Your task to perform on an android device: Open accessibility settings Image 0: 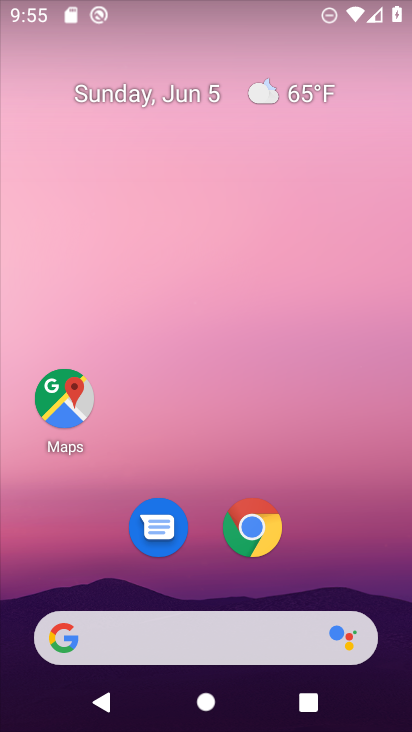
Step 0: drag from (192, 602) to (249, 115)
Your task to perform on an android device: Open accessibility settings Image 1: 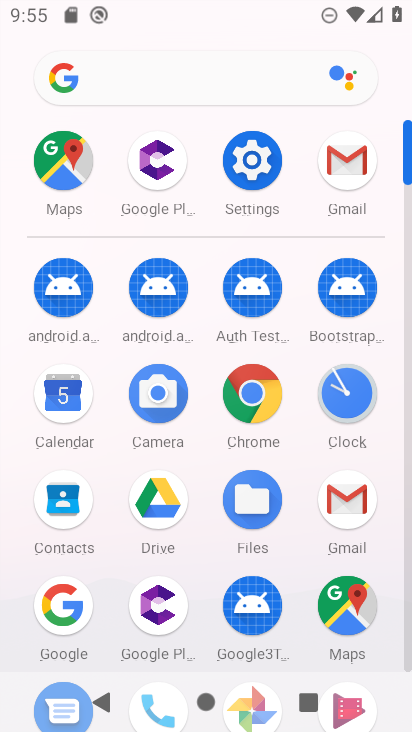
Step 1: drag from (183, 648) to (250, 135)
Your task to perform on an android device: Open accessibility settings Image 2: 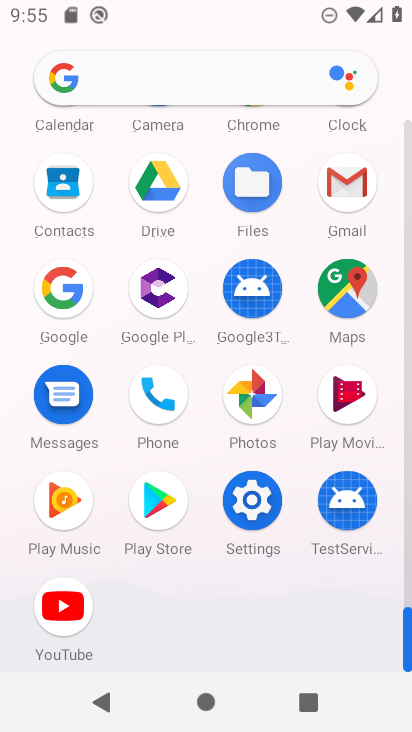
Step 2: click (253, 510)
Your task to perform on an android device: Open accessibility settings Image 3: 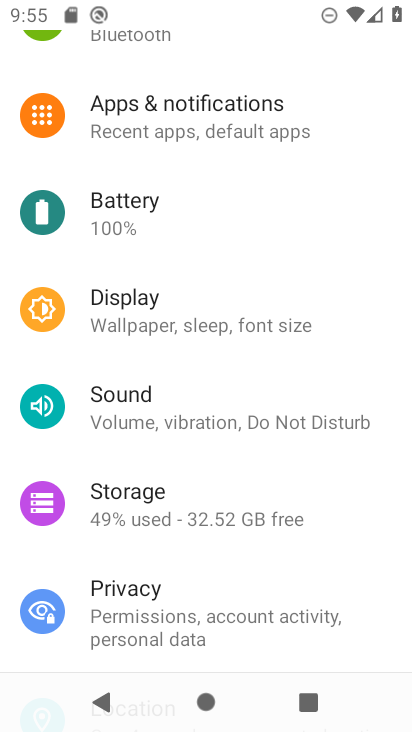
Step 3: drag from (183, 640) to (260, 7)
Your task to perform on an android device: Open accessibility settings Image 4: 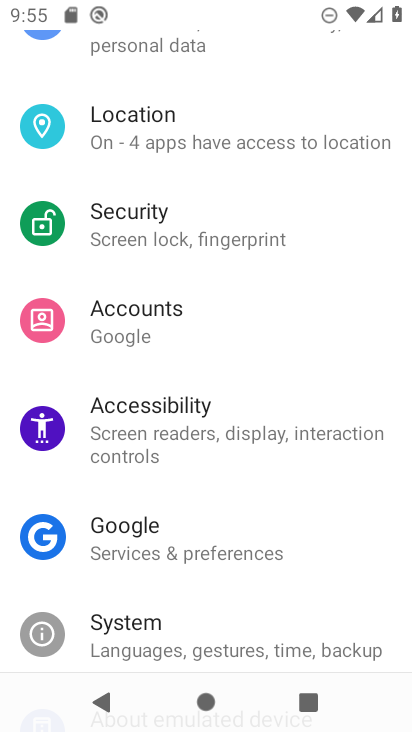
Step 4: click (131, 433)
Your task to perform on an android device: Open accessibility settings Image 5: 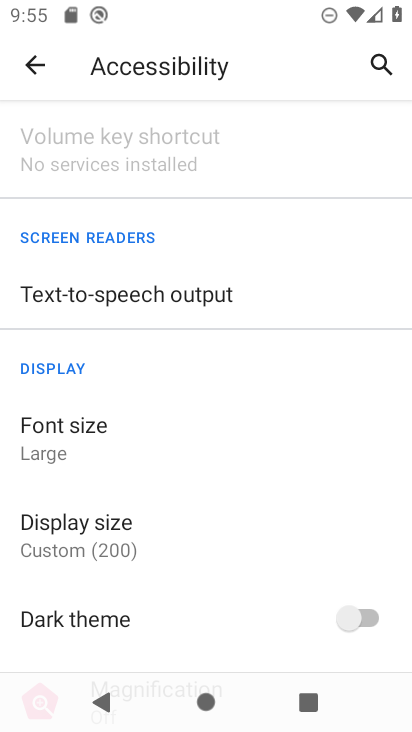
Step 5: task complete